Your task to perform on an android device: allow cookies in the chrome app Image 0: 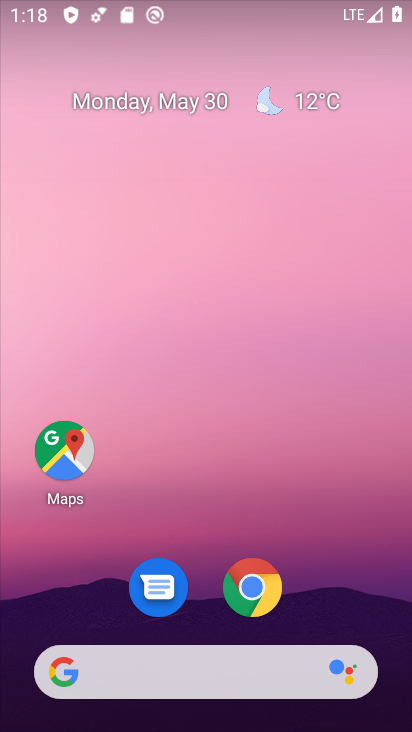
Step 0: drag from (325, 495) to (225, 66)
Your task to perform on an android device: allow cookies in the chrome app Image 1: 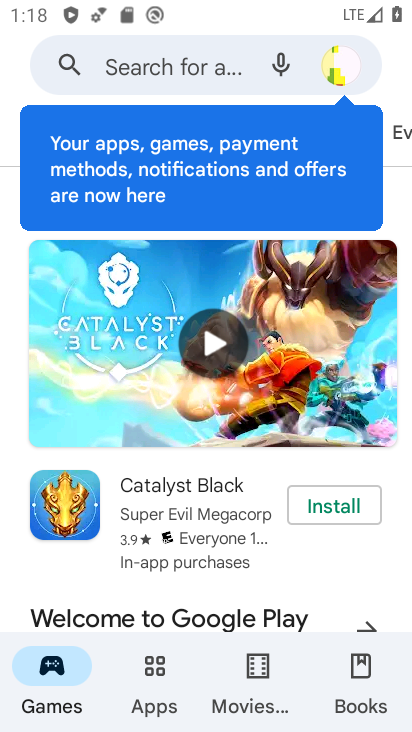
Step 1: press home button
Your task to perform on an android device: allow cookies in the chrome app Image 2: 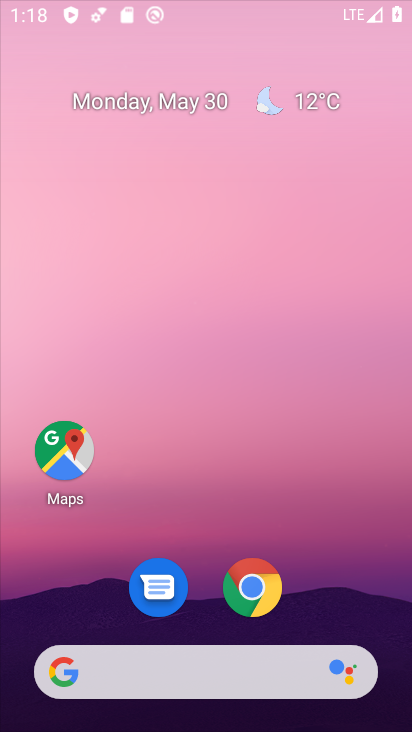
Step 2: drag from (332, 445) to (232, 14)
Your task to perform on an android device: allow cookies in the chrome app Image 3: 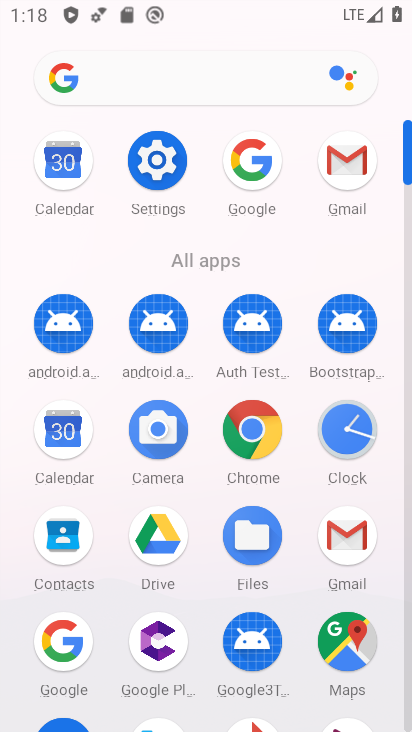
Step 3: click (257, 425)
Your task to perform on an android device: allow cookies in the chrome app Image 4: 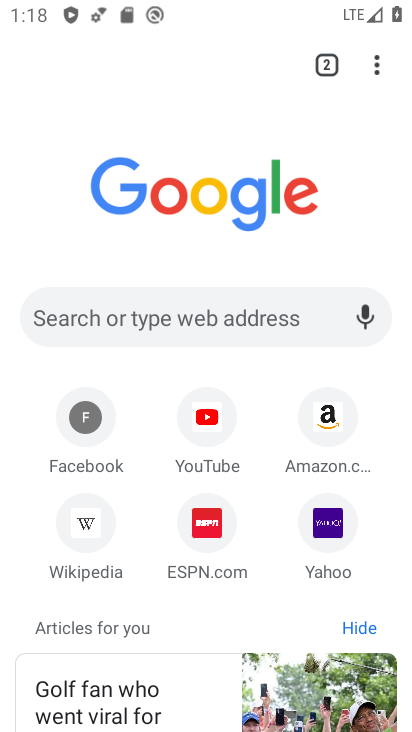
Step 4: click (363, 58)
Your task to perform on an android device: allow cookies in the chrome app Image 5: 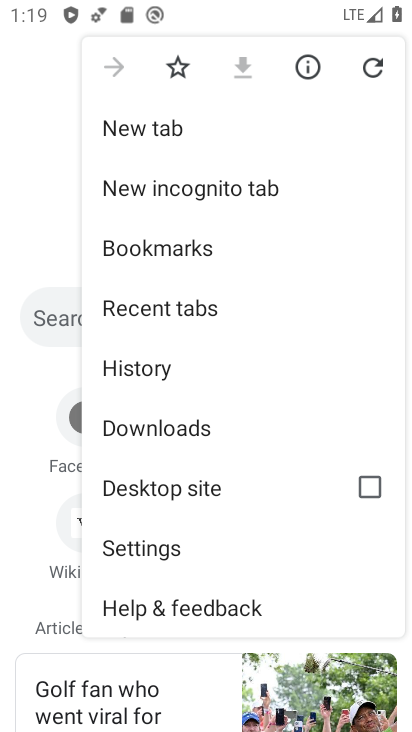
Step 5: drag from (203, 568) to (256, 207)
Your task to perform on an android device: allow cookies in the chrome app Image 6: 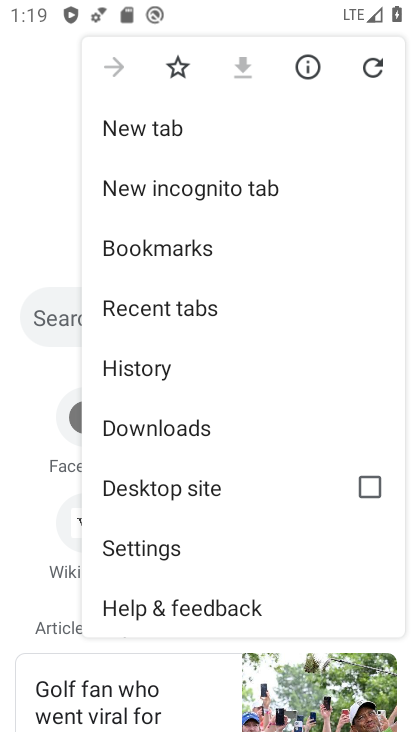
Step 6: click (164, 544)
Your task to perform on an android device: allow cookies in the chrome app Image 7: 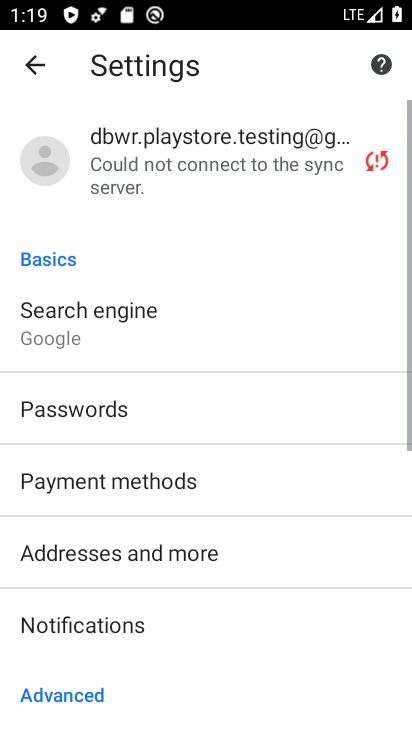
Step 7: drag from (192, 601) to (214, 189)
Your task to perform on an android device: allow cookies in the chrome app Image 8: 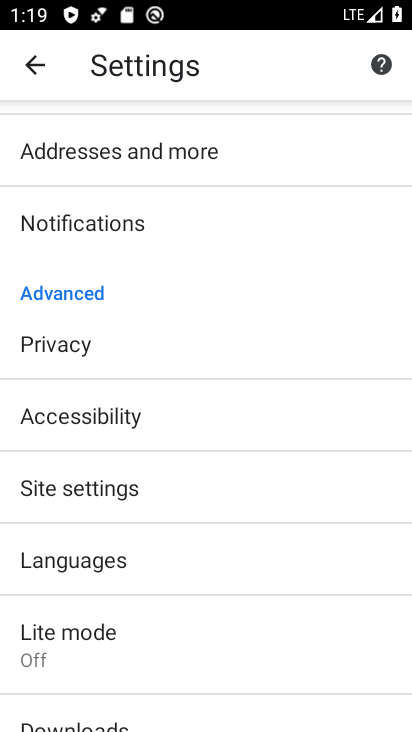
Step 8: click (147, 488)
Your task to perform on an android device: allow cookies in the chrome app Image 9: 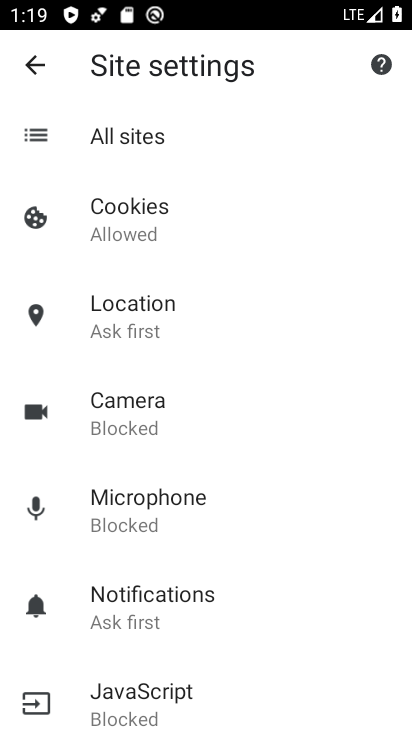
Step 9: click (185, 201)
Your task to perform on an android device: allow cookies in the chrome app Image 10: 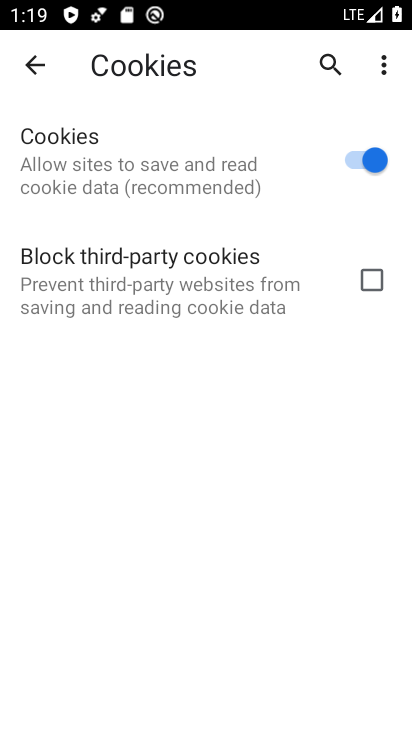
Step 10: task complete